Your task to perform on an android device: Do I have any events this weekend? Image 0: 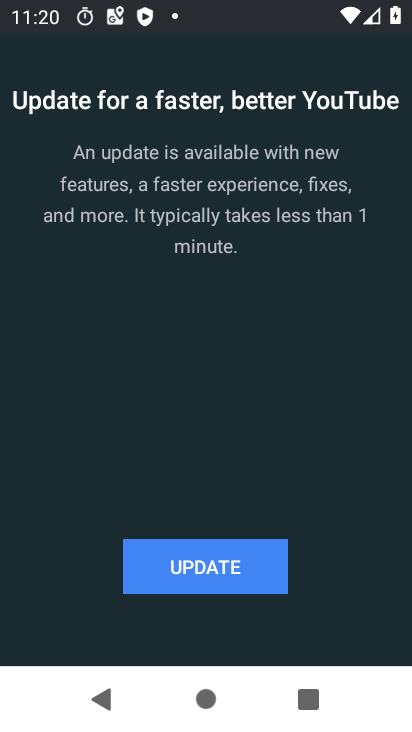
Step 0: press back button
Your task to perform on an android device: Do I have any events this weekend? Image 1: 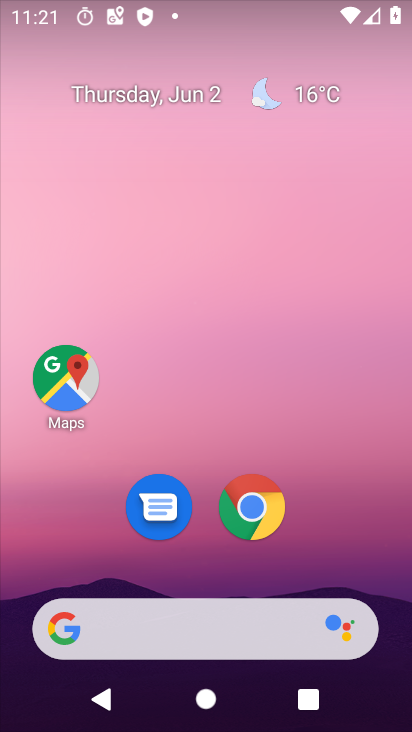
Step 1: drag from (407, 566) to (367, 49)
Your task to perform on an android device: Do I have any events this weekend? Image 2: 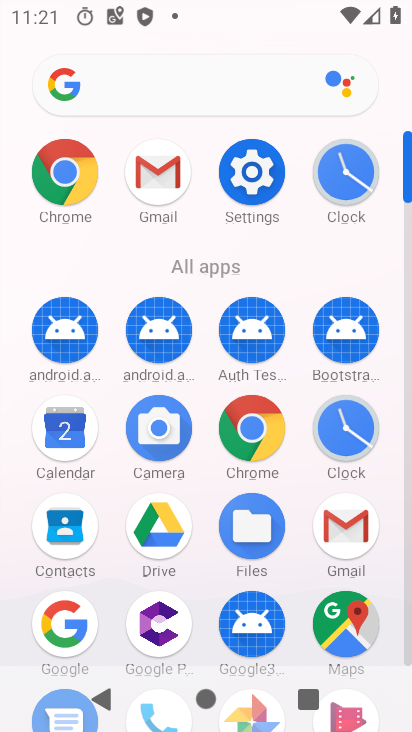
Step 2: click (53, 448)
Your task to perform on an android device: Do I have any events this weekend? Image 3: 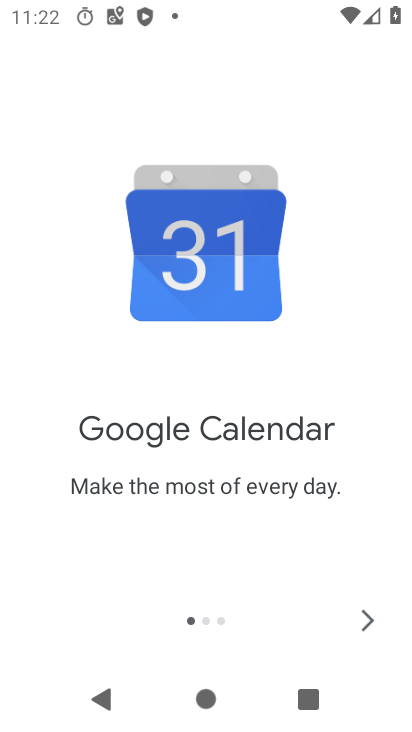
Step 3: click (356, 612)
Your task to perform on an android device: Do I have any events this weekend? Image 4: 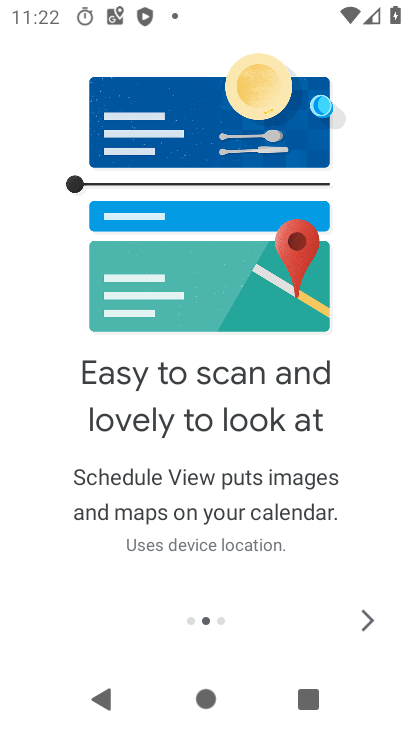
Step 4: click (373, 615)
Your task to perform on an android device: Do I have any events this weekend? Image 5: 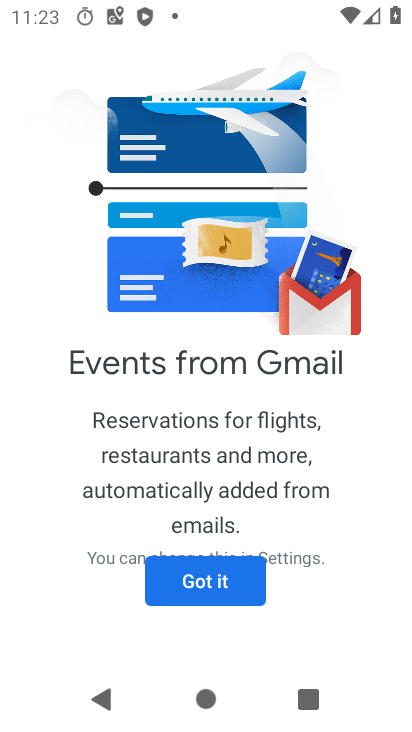
Step 5: click (192, 599)
Your task to perform on an android device: Do I have any events this weekend? Image 6: 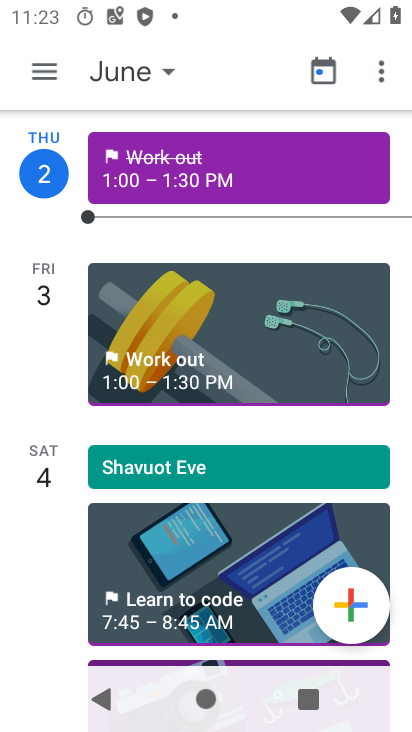
Step 6: task complete